Your task to perform on an android device: Clear all items from cart on newegg. Search for "macbook pro" on newegg, select the first entry, and add it to the cart. Image 0: 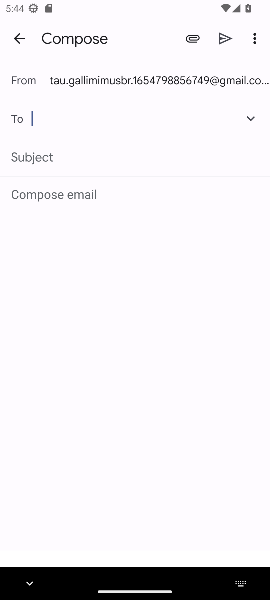
Step 0: press home button
Your task to perform on an android device: Clear all items from cart on newegg. Search for "macbook pro" on newegg, select the first entry, and add it to the cart. Image 1: 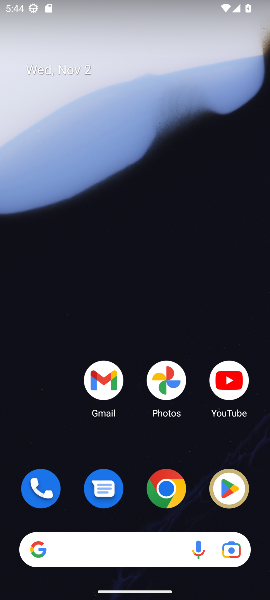
Step 1: click (163, 497)
Your task to perform on an android device: Clear all items from cart on newegg. Search for "macbook pro" on newegg, select the first entry, and add it to the cart. Image 2: 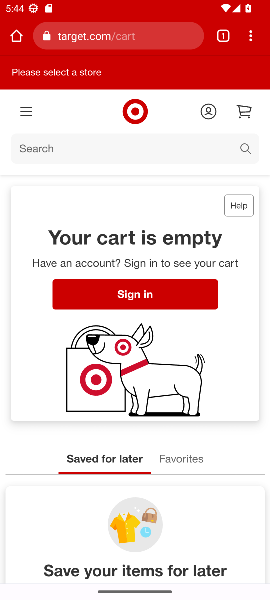
Step 2: click (119, 31)
Your task to perform on an android device: Clear all items from cart on newegg. Search for "macbook pro" on newegg, select the first entry, and add it to the cart. Image 3: 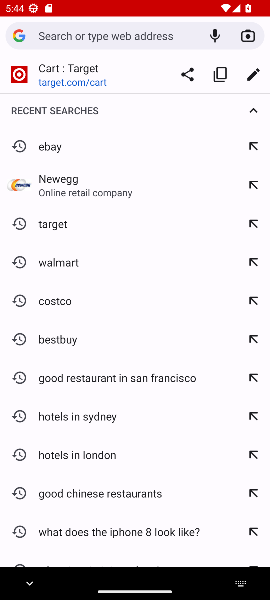
Step 3: type "newegg"
Your task to perform on an android device: Clear all items from cart on newegg. Search for "macbook pro" on newegg, select the first entry, and add it to the cart. Image 4: 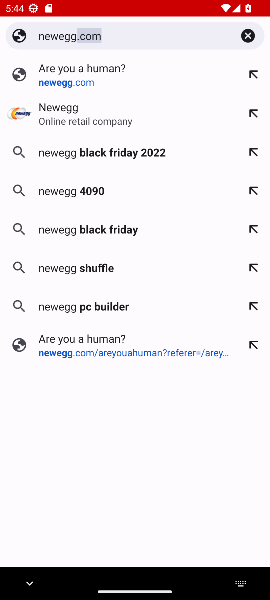
Step 4: click (115, 78)
Your task to perform on an android device: Clear all items from cart on newegg. Search for "macbook pro" on newegg, select the first entry, and add it to the cart. Image 5: 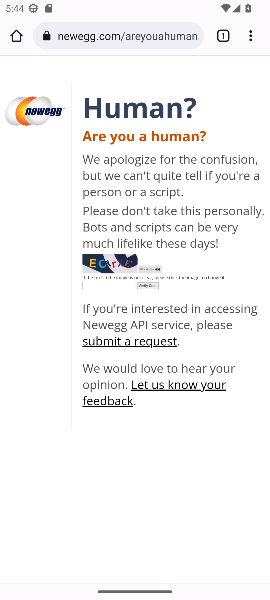
Step 5: task complete